Your task to perform on an android device: Open the calendar and show me this week's events? Image 0: 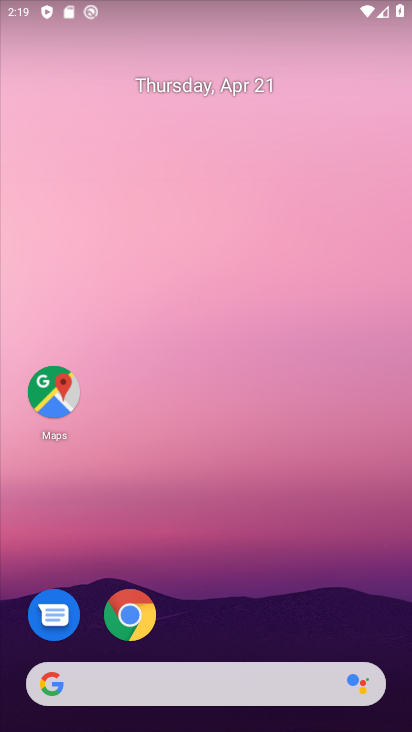
Step 0: drag from (255, 582) to (276, 38)
Your task to perform on an android device: Open the calendar and show me this week's events? Image 1: 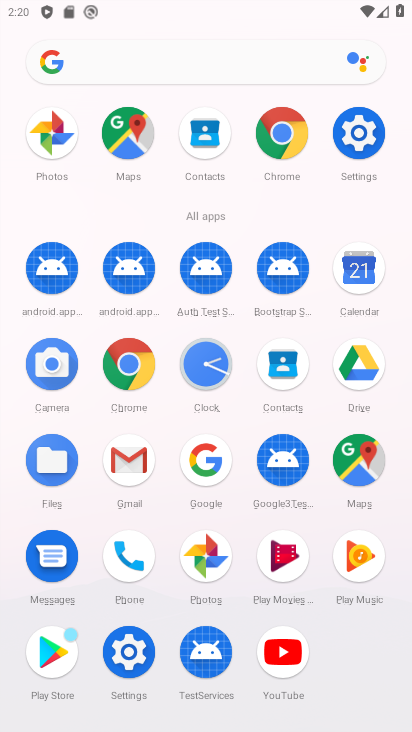
Step 1: click (364, 275)
Your task to perform on an android device: Open the calendar and show me this week's events? Image 2: 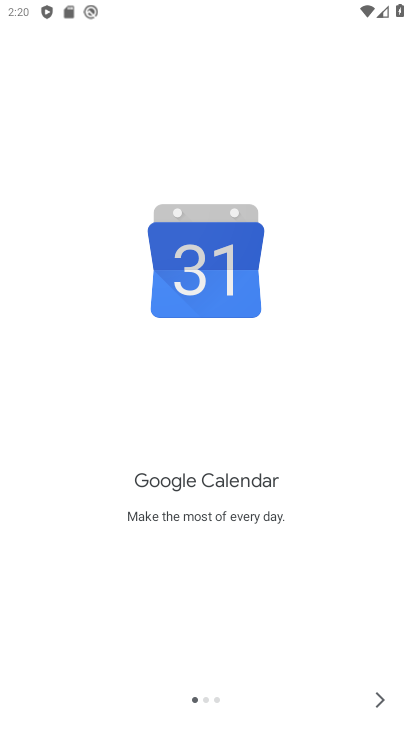
Step 2: click (382, 701)
Your task to perform on an android device: Open the calendar and show me this week's events? Image 3: 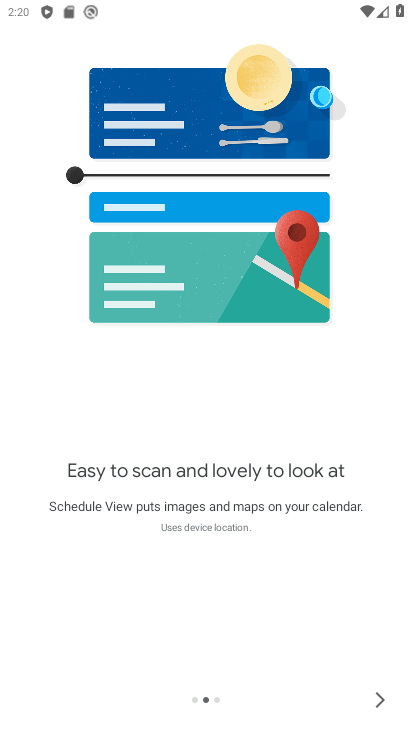
Step 3: click (382, 701)
Your task to perform on an android device: Open the calendar and show me this week's events? Image 4: 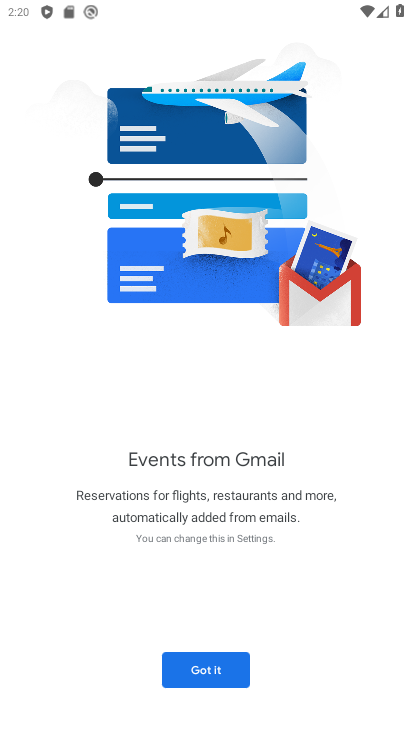
Step 4: click (227, 672)
Your task to perform on an android device: Open the calendar and show me this week's events? Image 5: 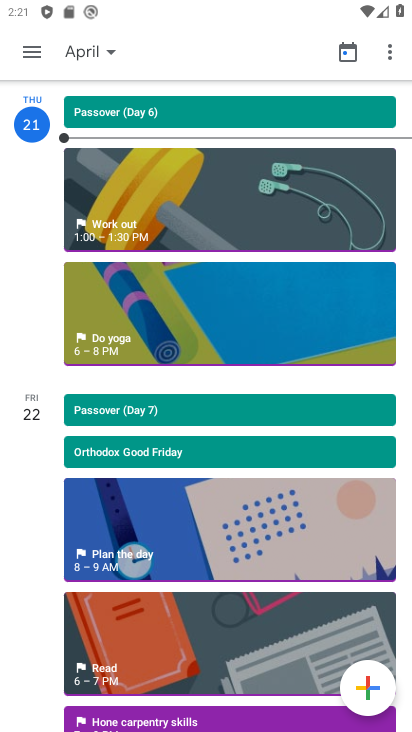
Step 5: task complete